Your task to perform on an android device: Go to Android settings Image 0: 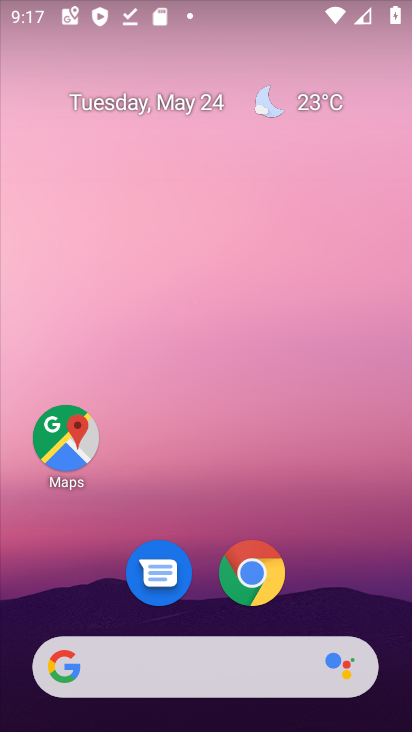
Step 0: drag from (366, 508) to (286, 139)
Your task to perform on an android device: Go to Android settings Image 1: 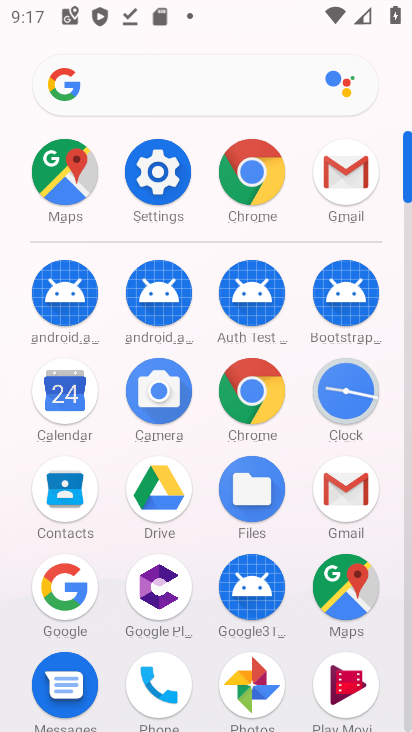
Step 1: click (159, 168)
Your task to perform on an android device: Go to Android settings Image 2: 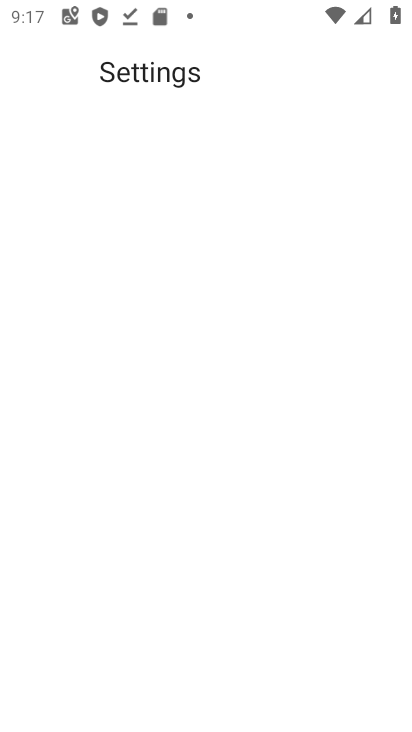
Step 2: click (159, 173)
Your task to perform on an android device: Go to Android settings Image 3: 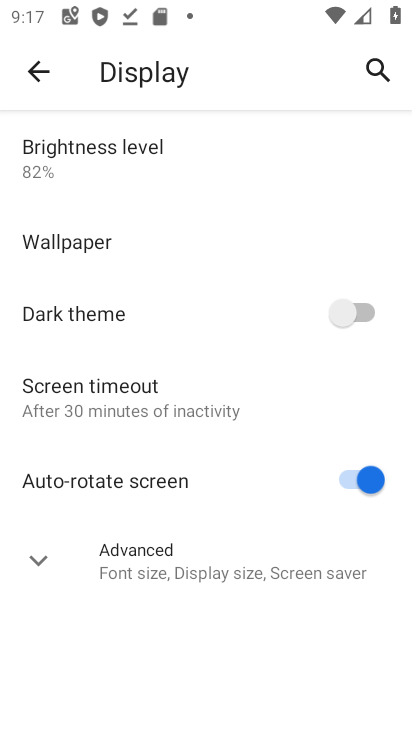
Step 3: click (34, 80)
Your task to perform on an android device: Go to Android settings Image 4: 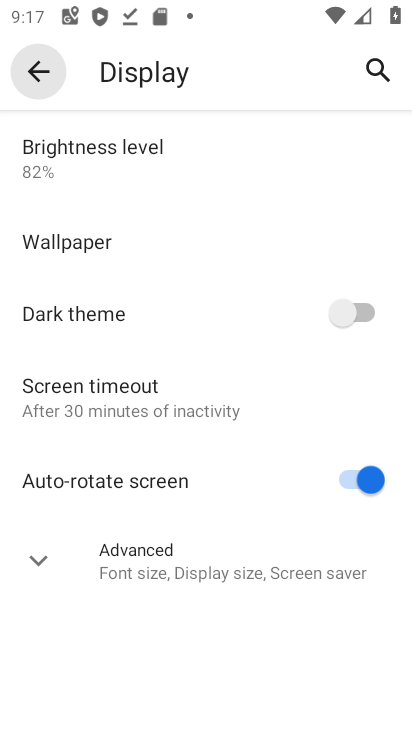
Step 4: click (34, 80)
Your task to perform on an android device: Go to Android settings Image 5: 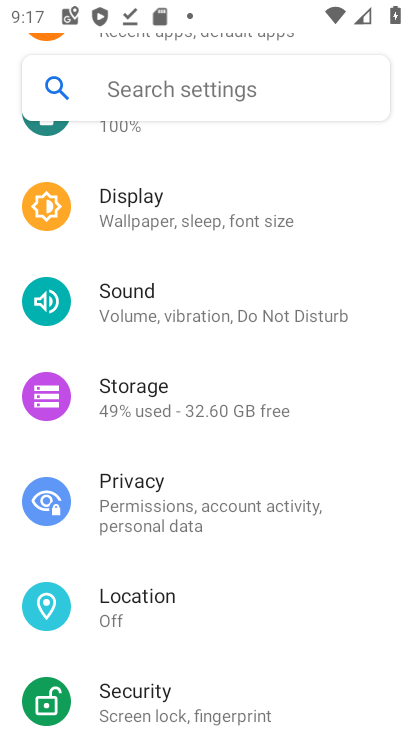
Step 5: drag from (219, 645) to (197, 236)
Your task to perform on an android device: Go to Android settings Image 6: 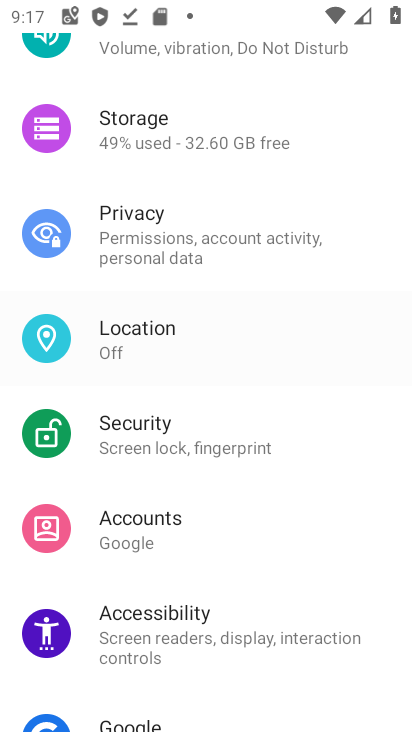
Step 6: drag from (268, 531) to (248, 189)
Your task to perform on an android device: Go to Android settings Image 7: 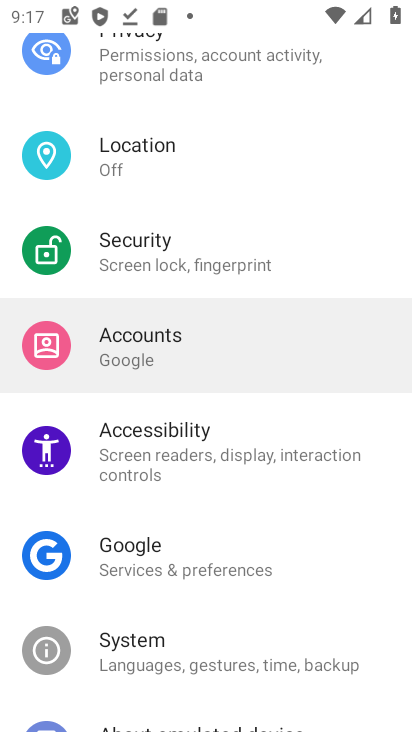
Step 7: drag from (185, 481) to (180, 86)
Your task to perform on an android device: Go to Android settings Image 8: 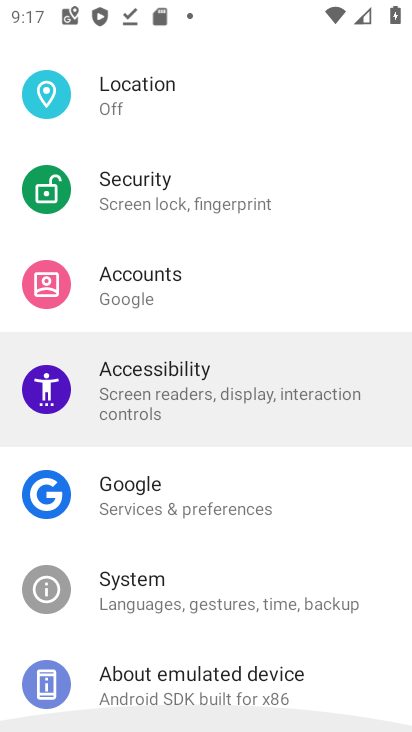
Step 8: drag from (219, 525) to (237, 165)
Your task to perform on an android device: Go to Android settings Image 9: 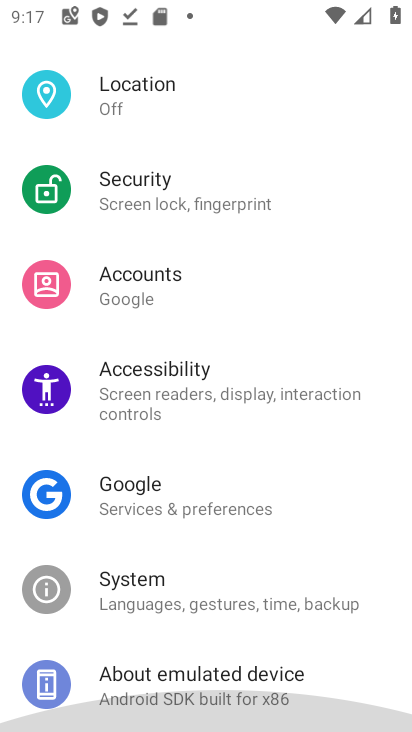
Step 9: drag from (233, 457) to (233, 163)
Your task to perform on an android device: Go to Android settings Image 10: 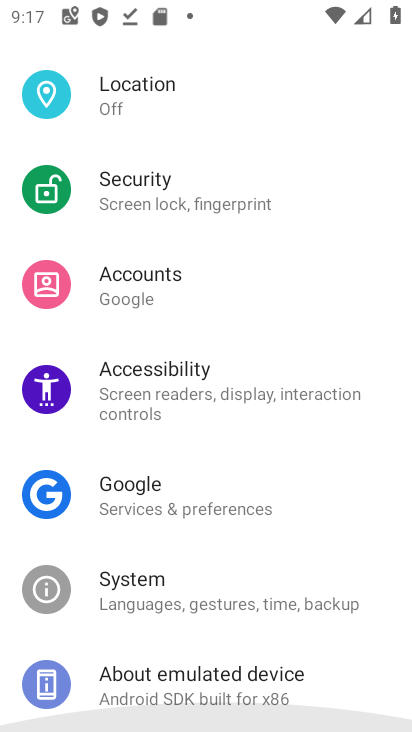
Step 10: drag from (255, 606) to (215, 221)
Your task to perform on an android device: Go to Android settings Image 11: 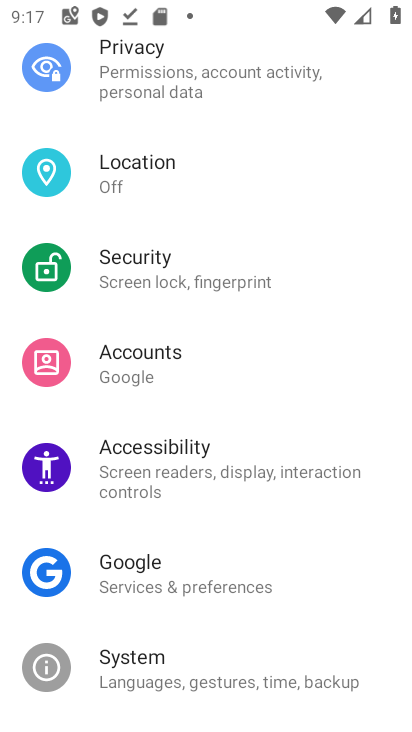
Step 11: drag from (135, 457) to (241, 62)
Your task to perform on an android device: Go to Android settings Image 12: 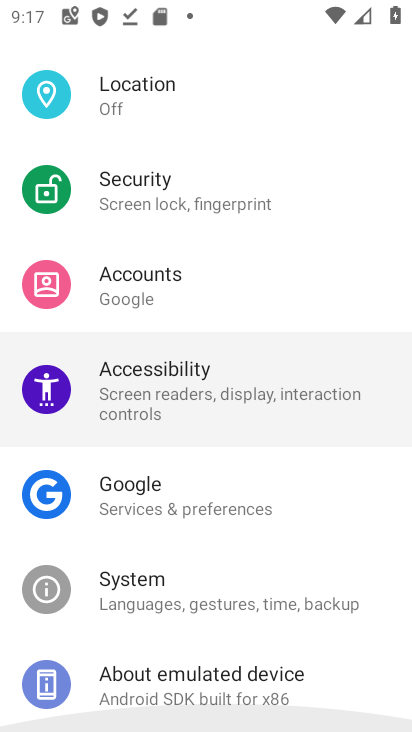
Step 12: drag from (231, 396) to (327, 62)
Your task to perform on an android device: Go to Android settings Image 13: 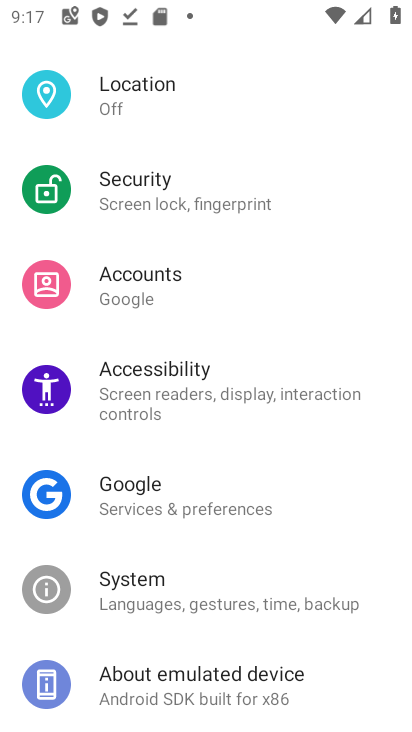
Step 13: drag from (237, 388) to (289, 80)
Your task to perform on an android device: Go to Android settings Image 14: 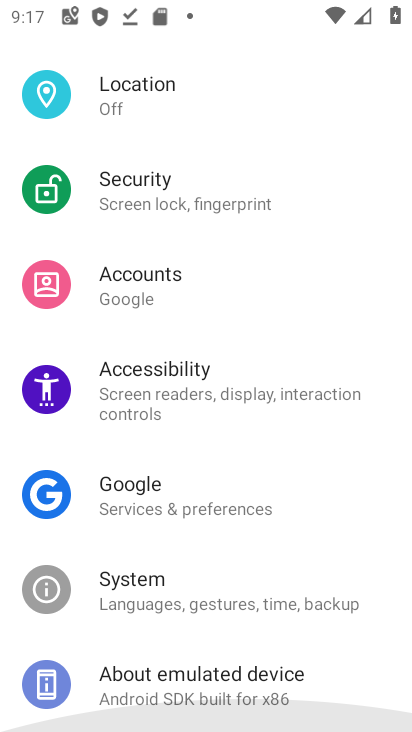
Step 14: drag from (201, 369) to (235, 147)
Your task to perform on an android device: Go to Android settings Image 15: 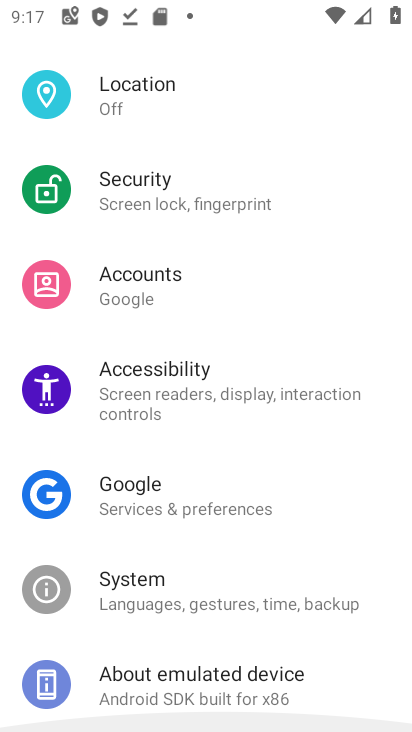
Step 15: drag from (255, 526) to (291, 28)
Your task to perform on an android device: Go to Android settings Image 16: 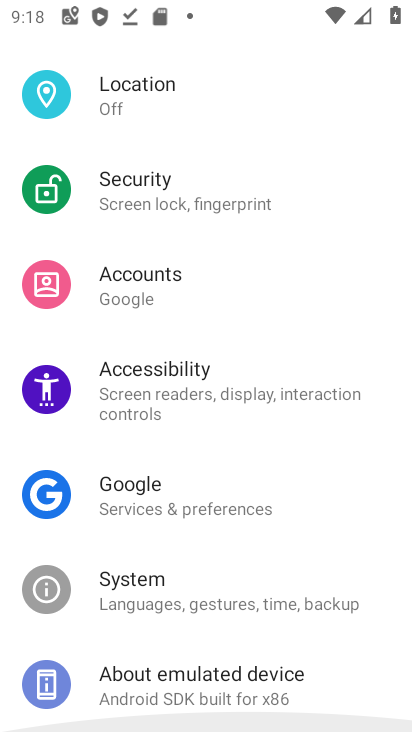
Step 16: drag from (300, 44) to (327, 15)
Your task to perform on an android device: Go to Android settings Image 17: 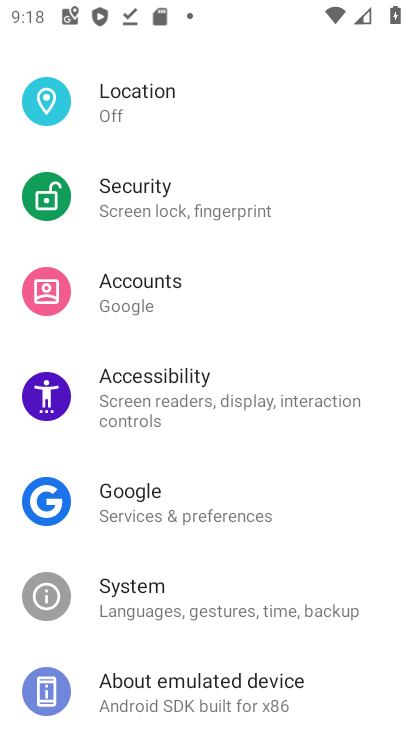
Step 17: click (180, 675)
Your task to perform on an android device: Go to Android settings Image 18: 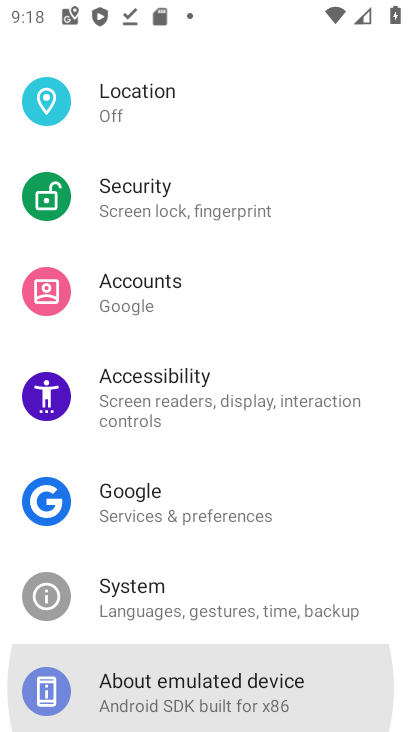
Step 18: click (190, 689)
Your task to perform on an android device: Go to Android settings Image 19: 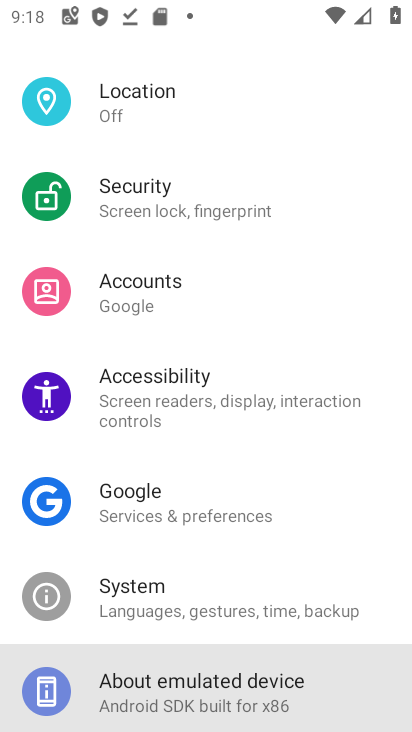
Step 19: click (198, 683)
Your task to perform on an android device: Go to Android settings Image 20: 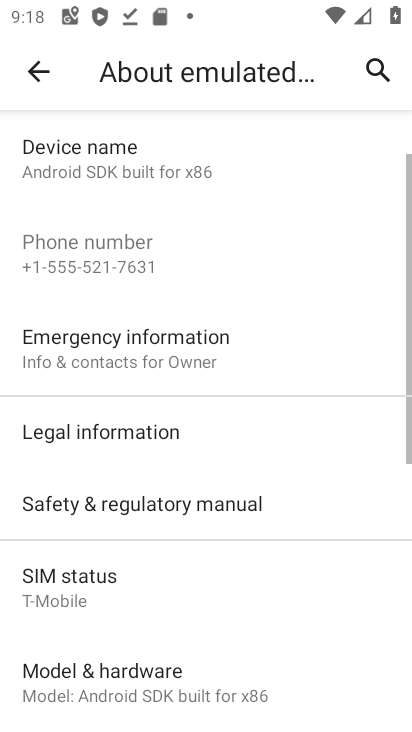
Step 20: task complete